Your task to perform on an android device: Find coffee shops on Maps Image 0: 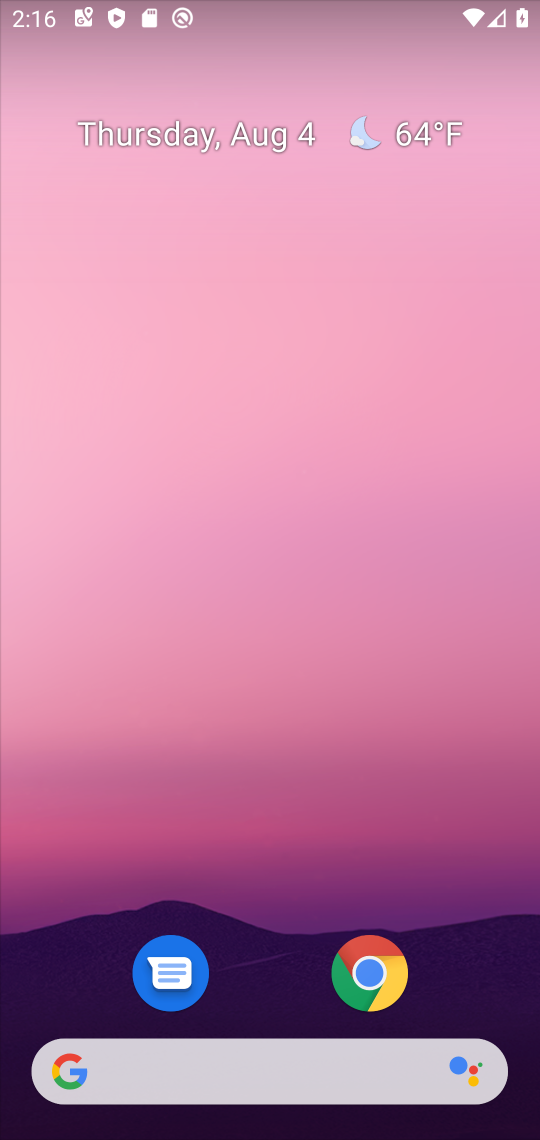
Step 0: press home button
Your task to perform on an android device: Find coffee shops on Maps Image 1: 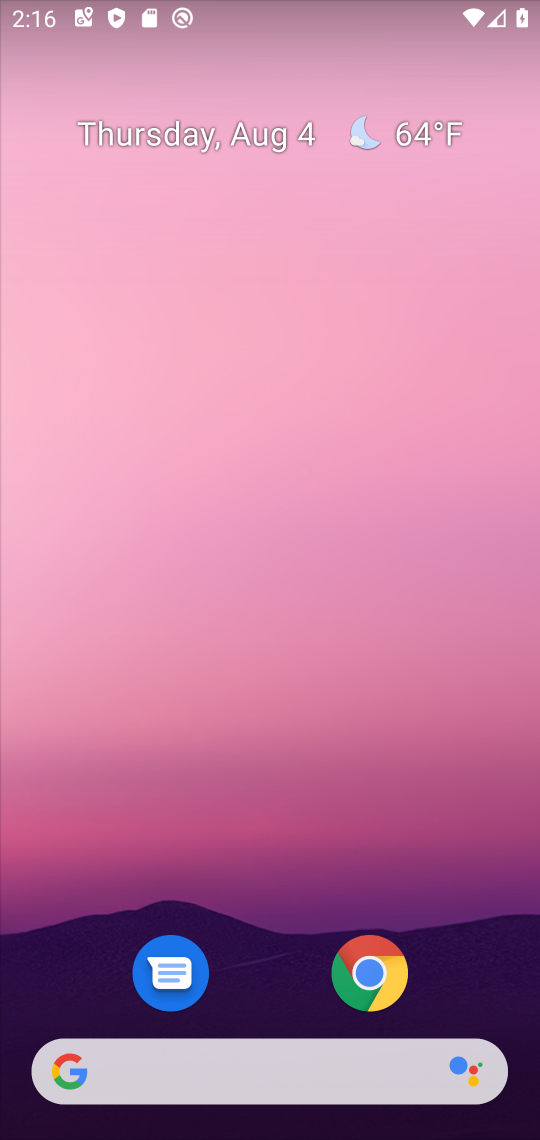
Step 1: drag from (282, 1037) to (251, 65)
Your task to perform on an android device: Find coffee shops on Maps Image 2: 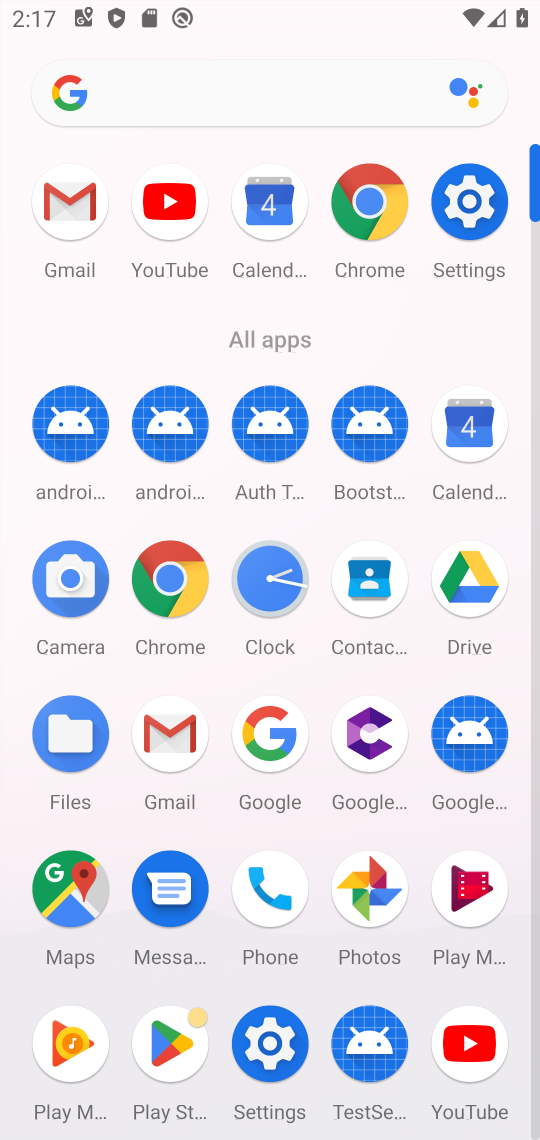
Step 2: click (76, 892)
Your task to perform on an android device: Find coffee shops on Maps Image 3: 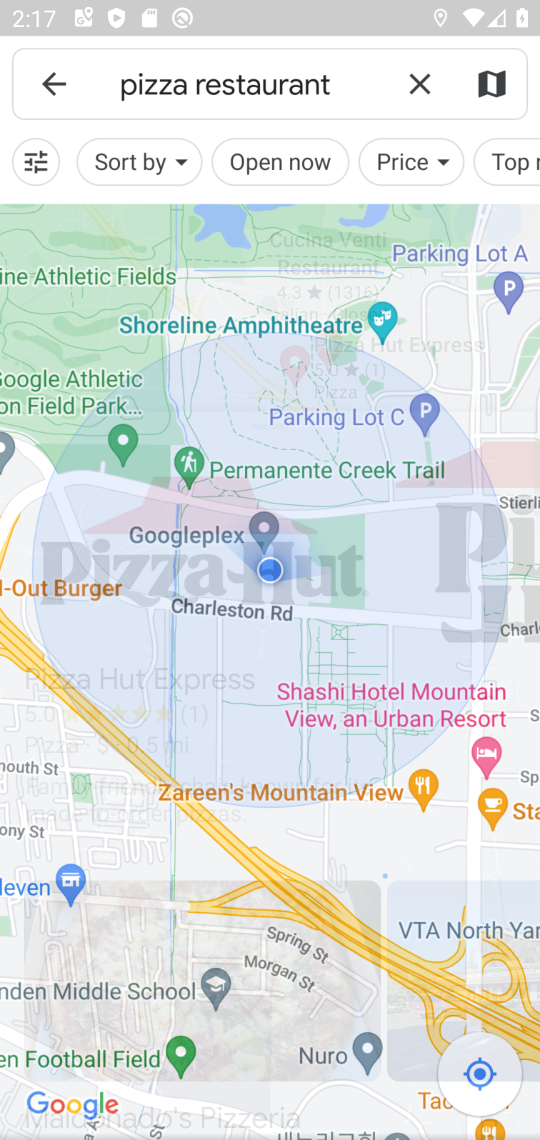
Step 3: click (414, 76)
Your task to perform on an android device: Find coffee shops on Maps Image 4: 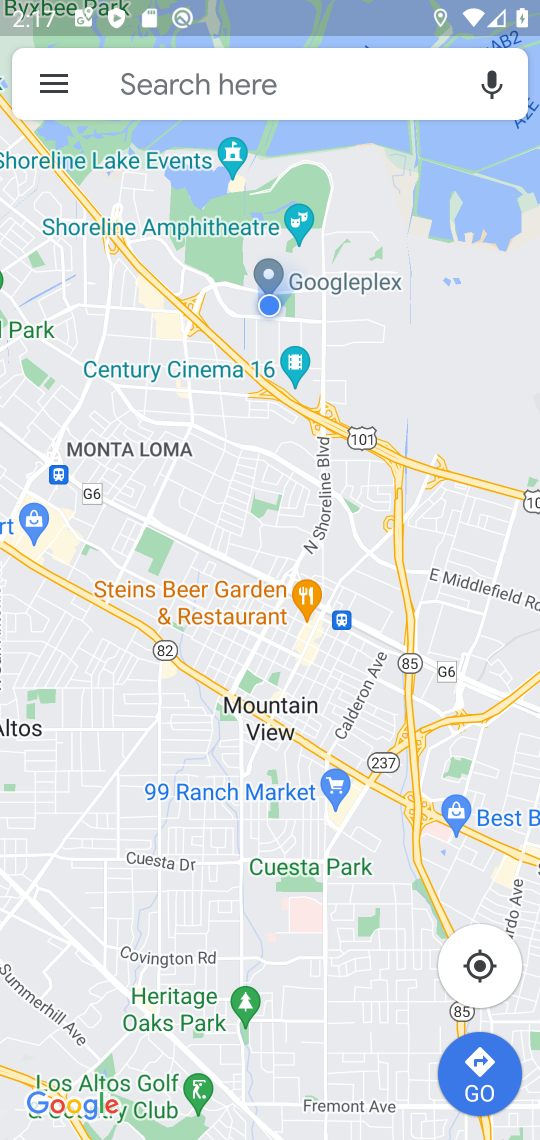
Step 4: click (260, 97)
Your task to perform on an android device: Find coffee shops on Maps Image 5: 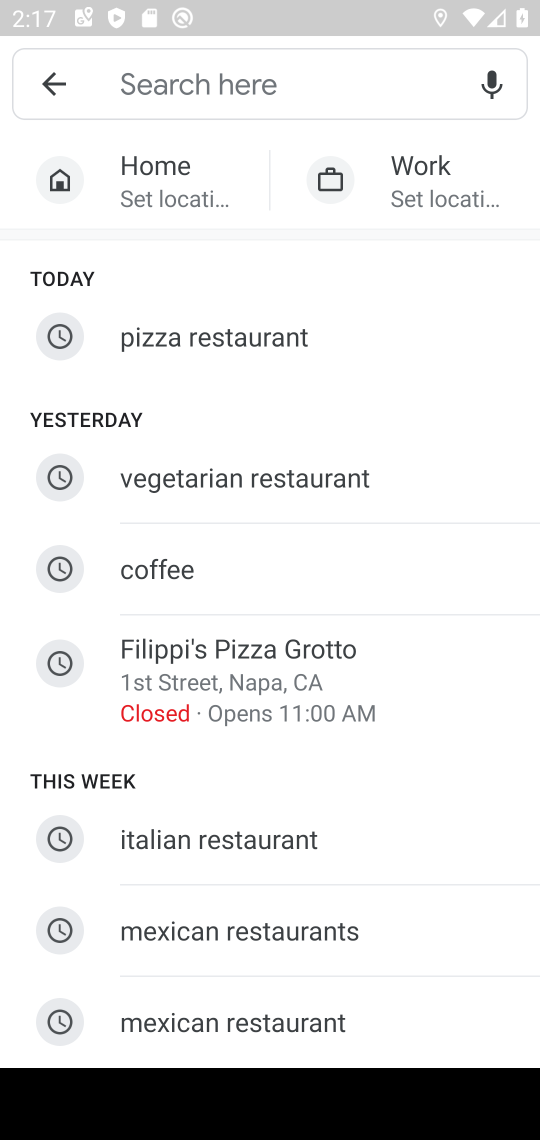
Step 5: click (235, 565)
Your task to perform on an android device: Find coffee shops on Maps Image 6: 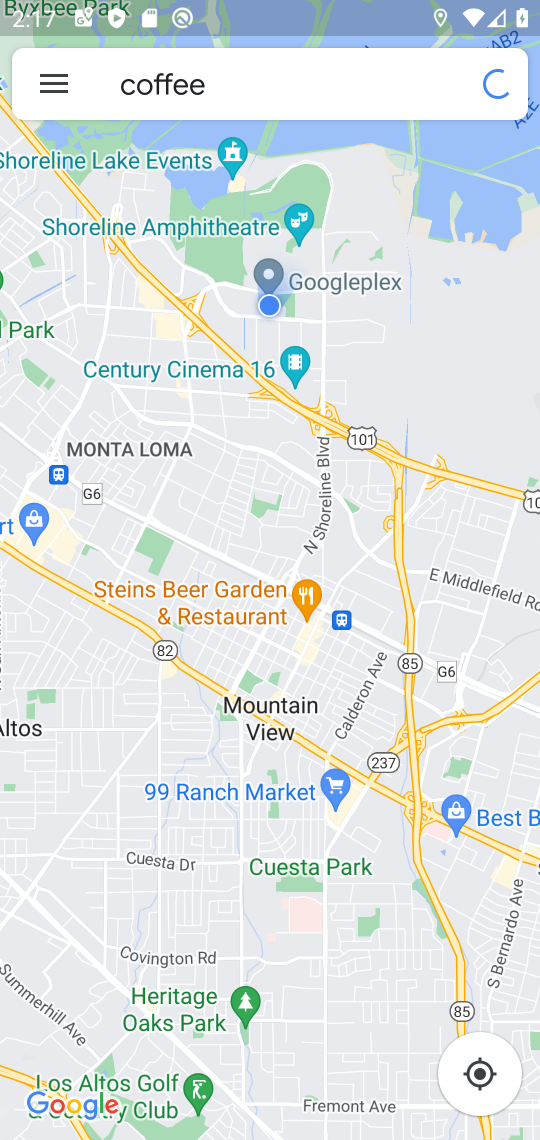
Step 6: task complete